Your task to perform on an android device: set the stopwatch Image 0: 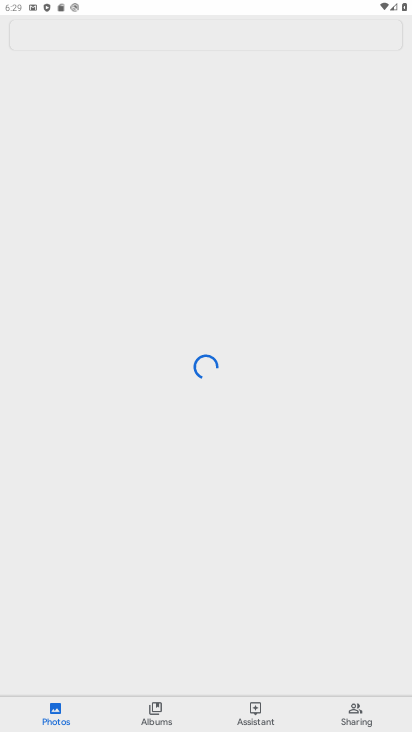
Step 0: press home button
Your task to perform on an android device: set the stopwatch Image 1: 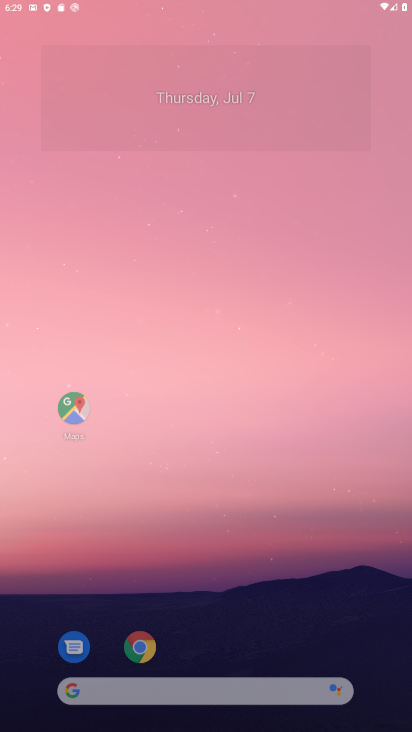
Step 1: drag from (407, 676) to (300, 60)
Your task to perform on an android device: set the stopwatch Image 2: 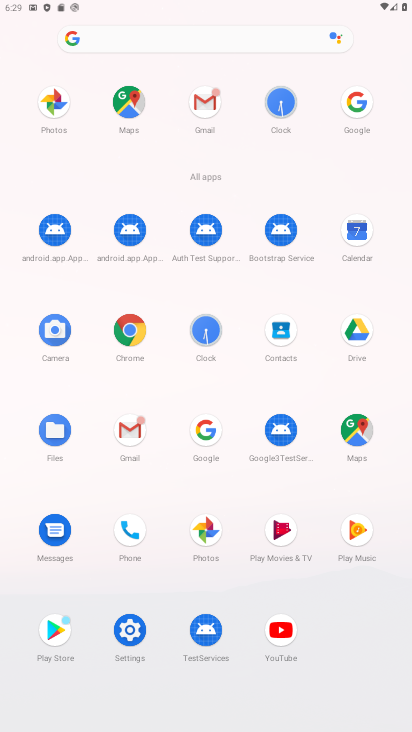
Step 2: click (205, 328)
Your task to perform on an android device: set the stopwatch Image 3: 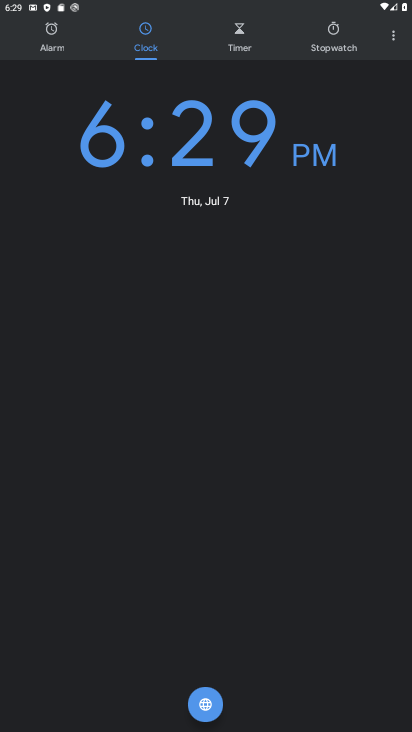
Step 3: click (333, 31)
Your task to perform on an android device: set the stopwatch Image 4: 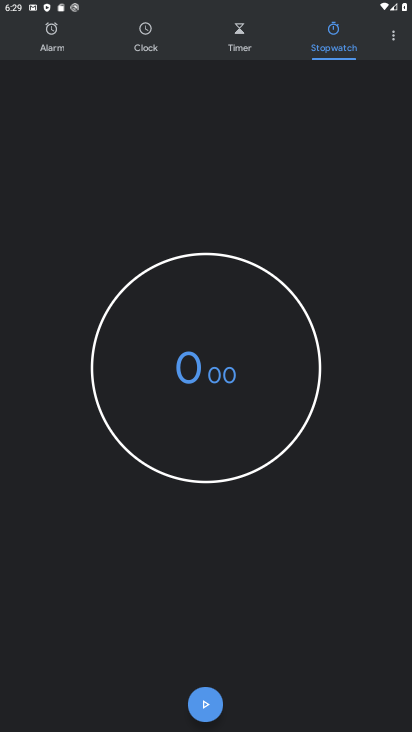
Step 4: click (201, 704)
Your task to perform on an android device: set the stopwatch Image 5: 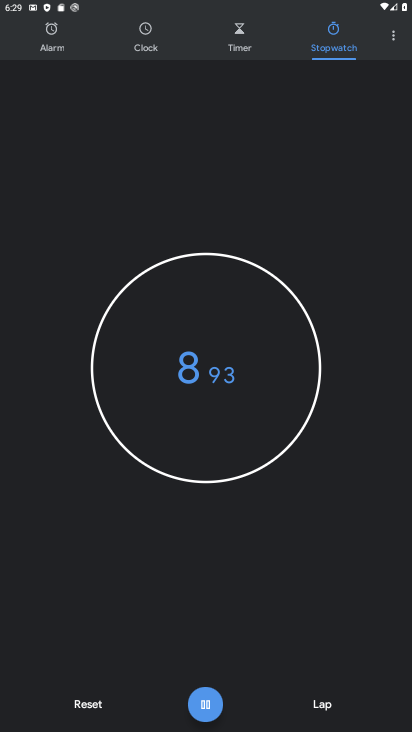
Step 5: click (202, 709)
Your task to perform on an android device: set the stopwatch Image 6: 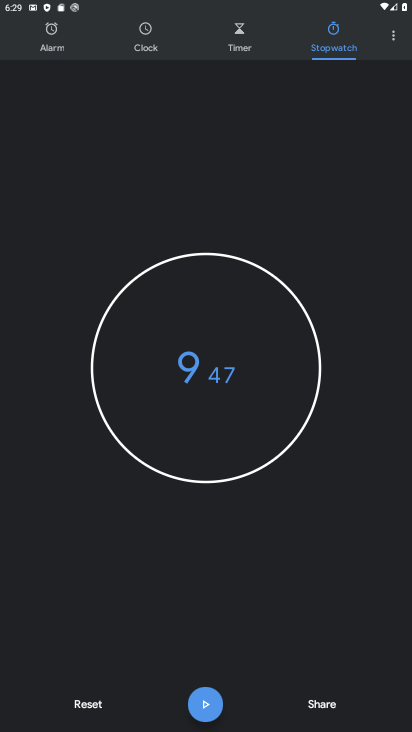
Step 6: task complete